Your task to perform on an android device: allow cookies in the chrome app Image 0: 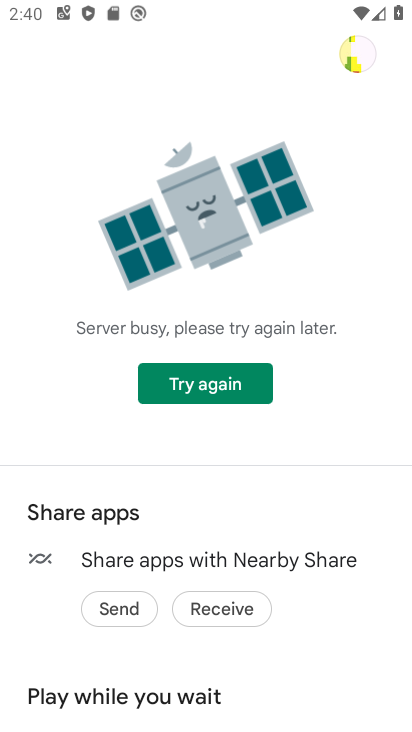
Step 0: press back button
Your task to perform on an android device: allow cookies in the chrome app Image 1: 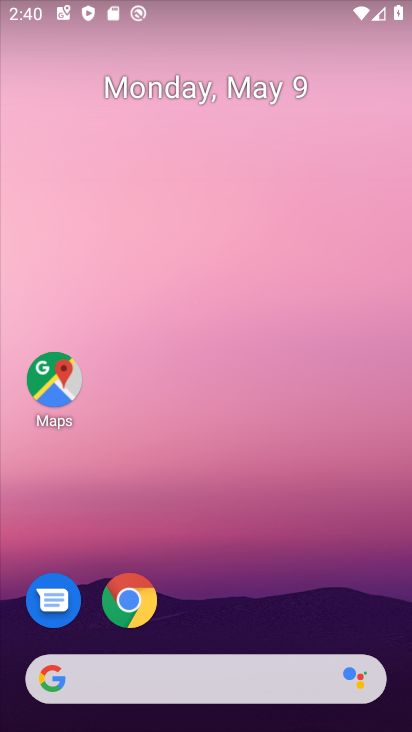
Step 1: click (120, 592)
Your task to perform on an android device: allow cookies in the chrome app Image 2: 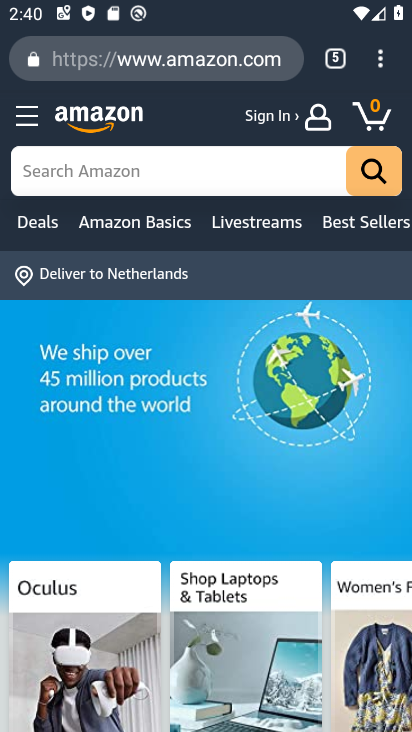
Step 2: drag from (378, 55) to (146, 629)
Your task to perform on an android device: allow cookies in the chrome app Image 3: 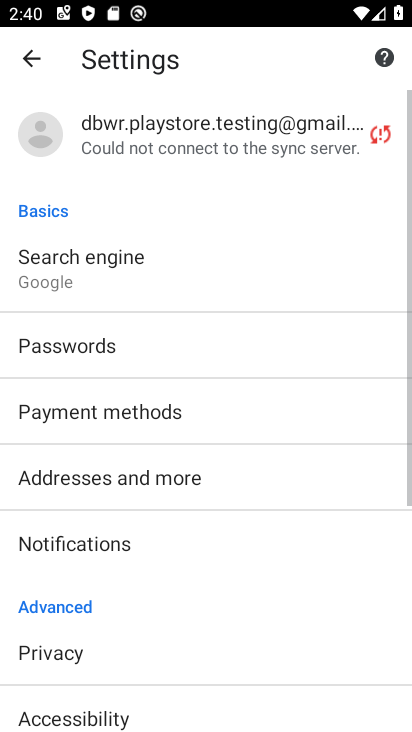
Step 3: drag from (120, 706) to (185, 365)
Your task to perform on an android device: allow cookies in the chrome app Image 4: 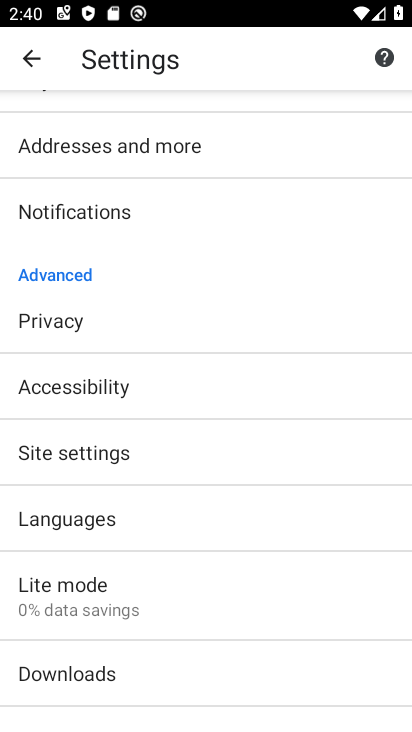
Step 4: click (87, 448)
Your task to perform on an android device: allow cookies in the chrome app Image 5: 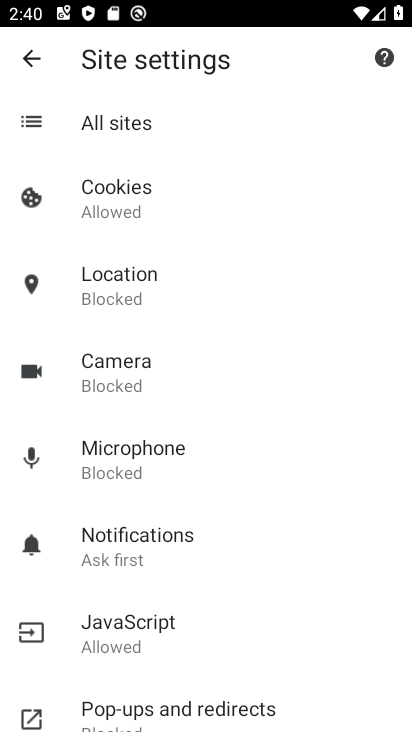
Step 5: click (108, 190)
Your task to perform on an android device: allow cookies in the chrome app Image 6: 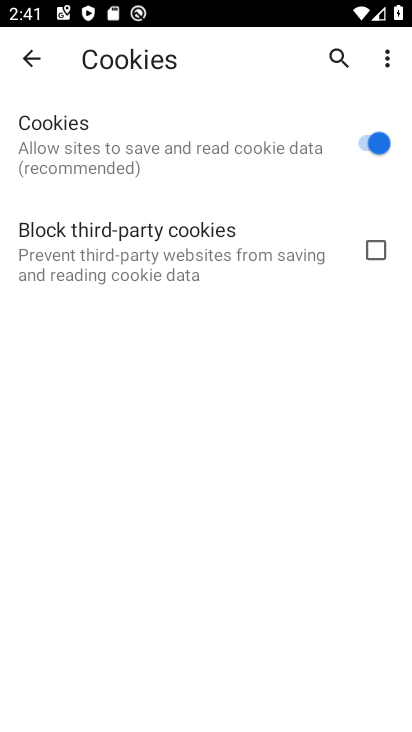
Step 6: task complete